Your task to perform on an android device: all mails in gmail Image 0: 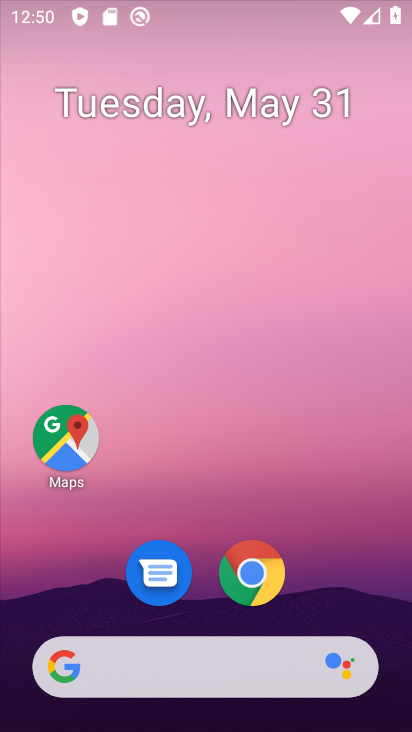
Step 0: click (352, 239)
Your task to perform on an android device: all mails in gmail Image 1: 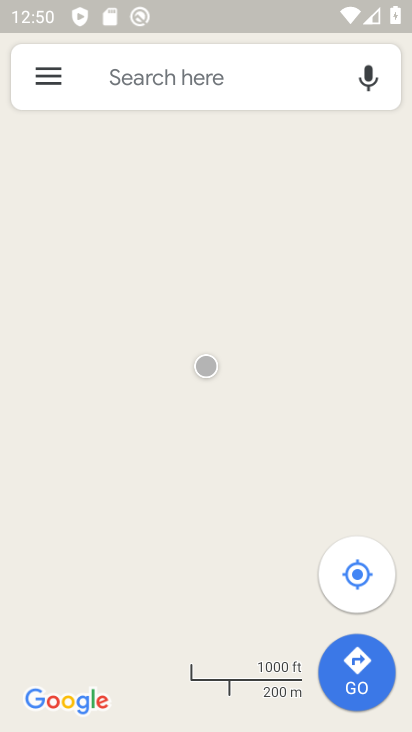
Step 1: press home button
Your task to perform on an android device: all mails in gmail Image 2: 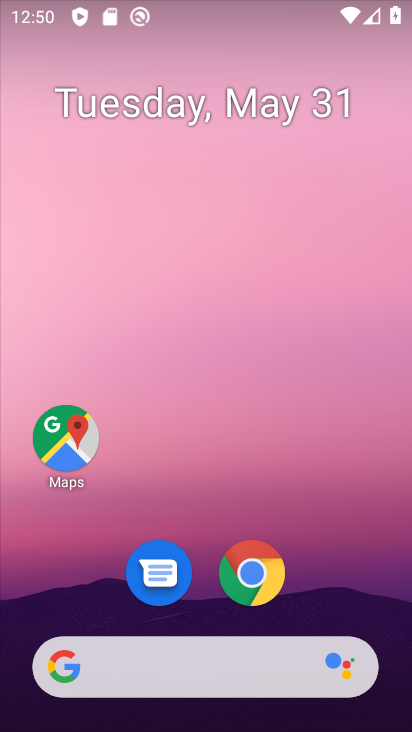
Step 2: drag from (360, 602) to (343, 192)
Your task to perform on an android device: all mails in gmail Image 3: 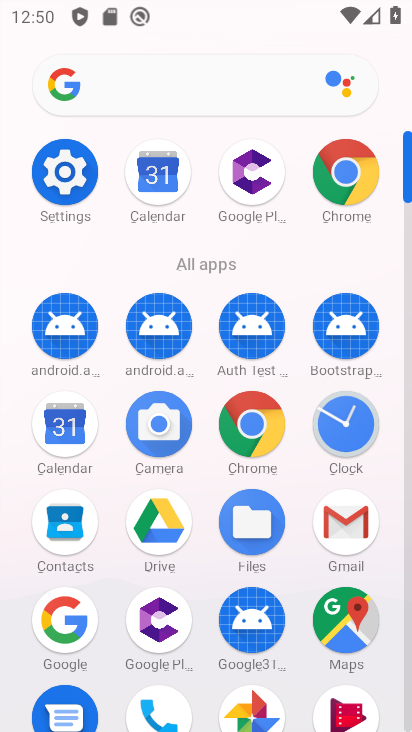
Step 3: click (347, 529)
Your task to perform on an android device: all mails in gmail Image 4: 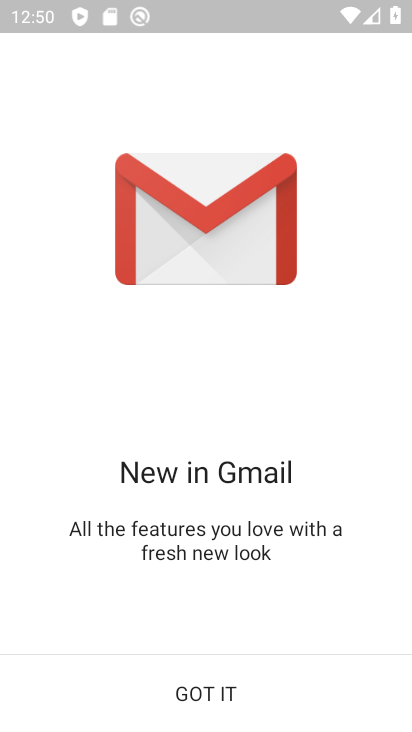
Step 4: click (246, 698)
Your task to perform on an android device: all mails in gmail Image 5: 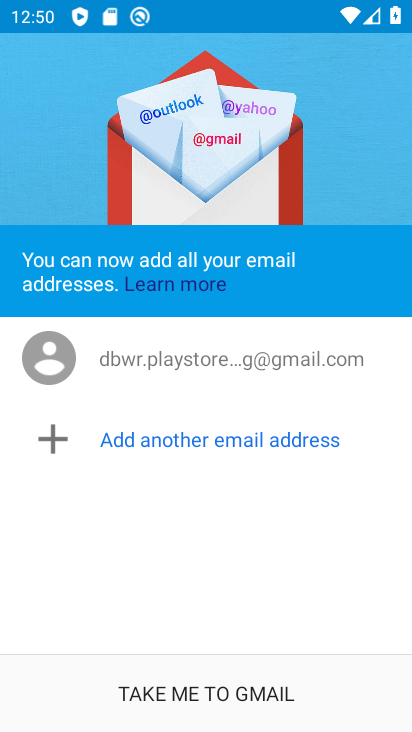
Step 5: click (294, 690)
Your task to perform on an android device: all mails in gmail Image 6: 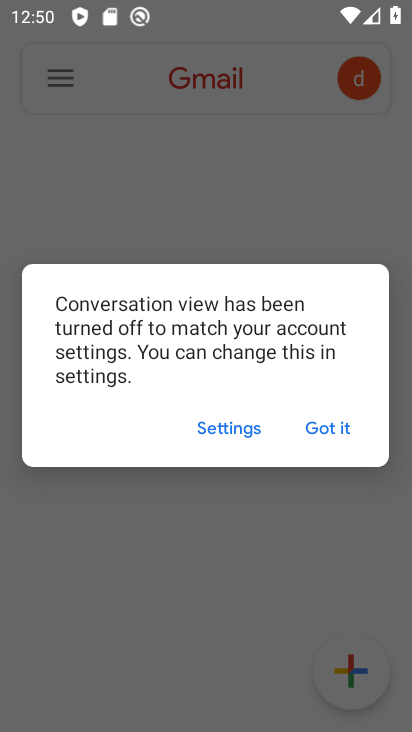
Step 6: click (316, 418)
Your task to perform on an android device: all mails in gmail Image 7: 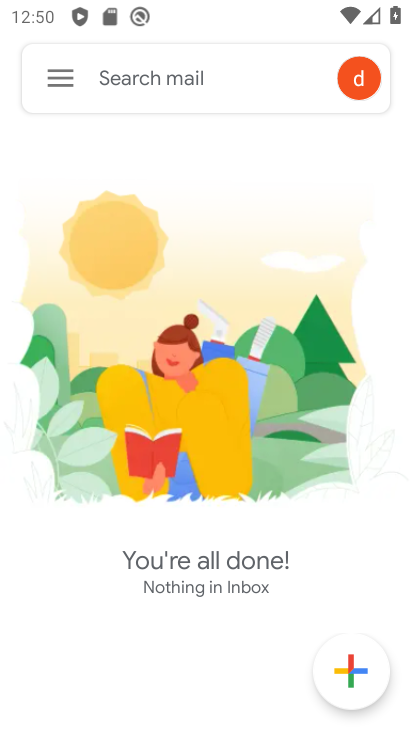
Step 7: click (57, 92)
Your task to perform on an android device: all mails in gmail Image 8: 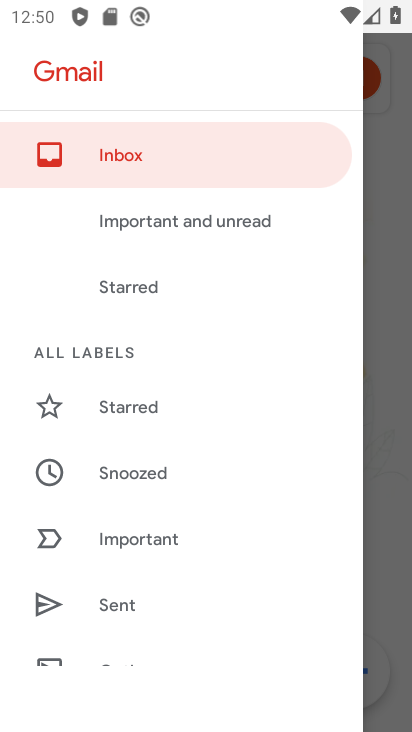
Step 8: drag from (242, 412) to (253, 312)
Your task to perform on an android device: all mails in gmail Image 9: 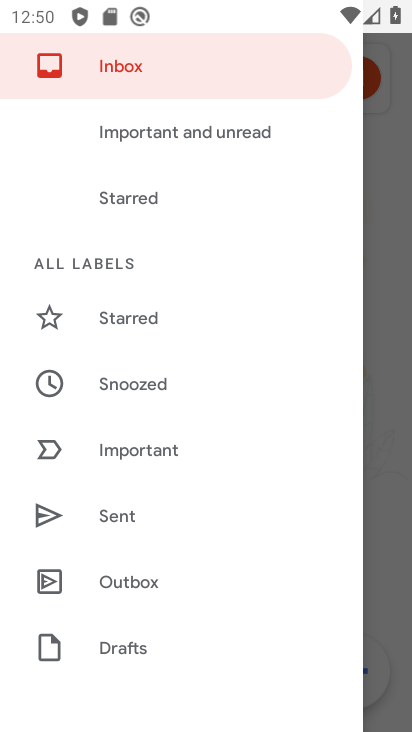
Step 9: drag from (264, 489) to (269, 365)
Your task to perform on an android device: all mails in gmail Image 10: 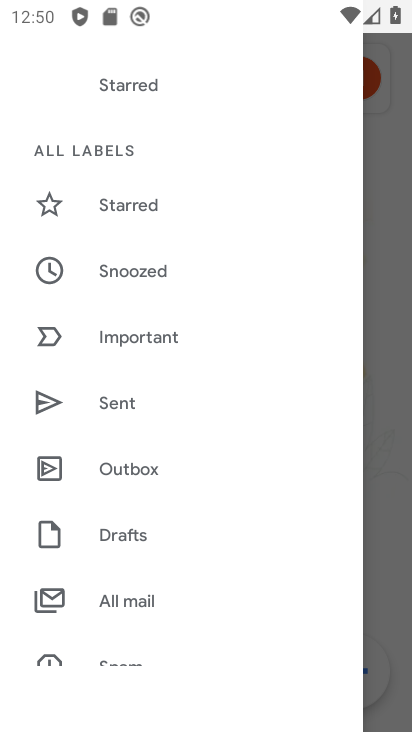
Step 10: drag from (268, 511) to (273, 413)
Your task to perform on an android device: all mails in gmail Image 11: 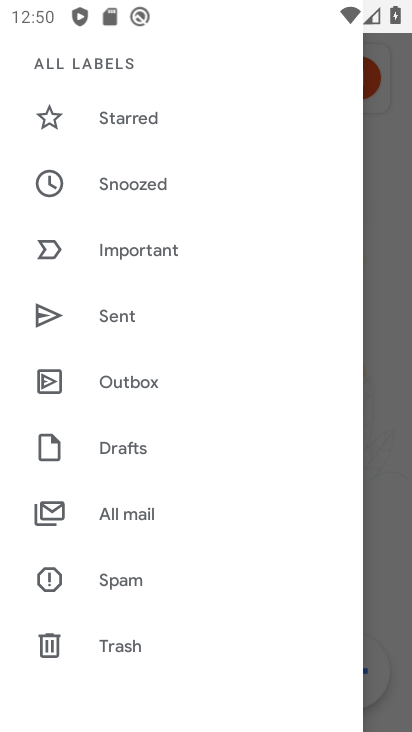
Step 11: drag from (284, 568) to (285, 463)
Your task to perform on an android device: all mails in gmail Image 12: 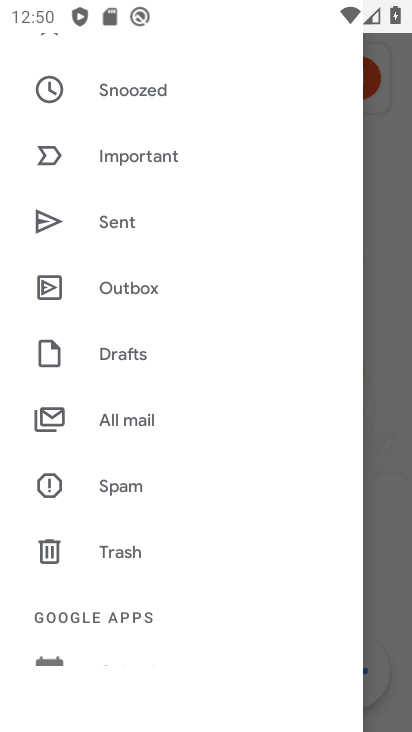
Step 12: drag from (272, 553) to (273, 443)
Your task to perform on an android device: all mails in gmail Image 13: 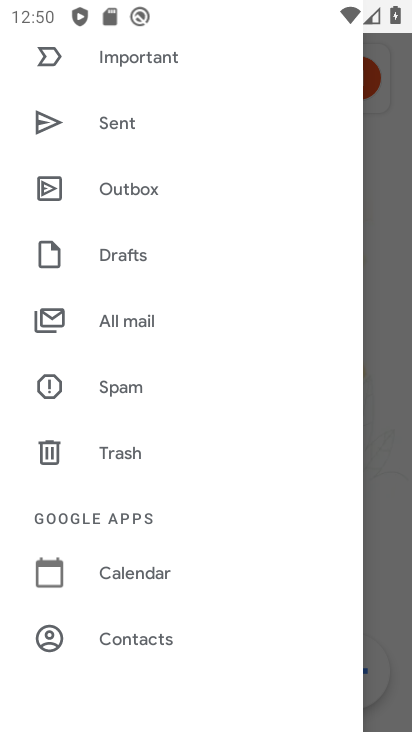
Step 13: drag from (271, 572) to (266, 462)
Your task to perform on an android device: all mails in gmail Image 14: 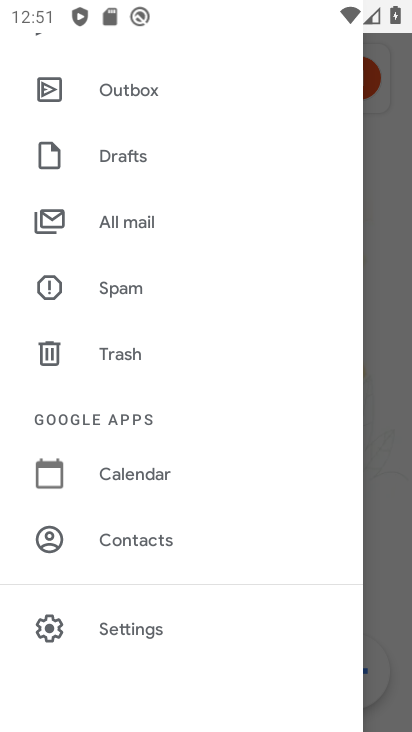
Step 14: drag from (269, 561) to (272, 453)
Your task to perform on an android device: all mails in gmail Image 15: 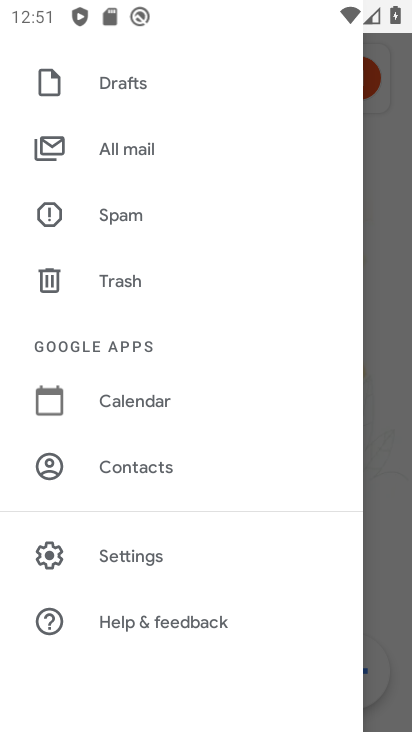
Step 15: drag from (280, 555) to (288, 474)
Your task to perform on an android device: all mails in gmail Image 16: 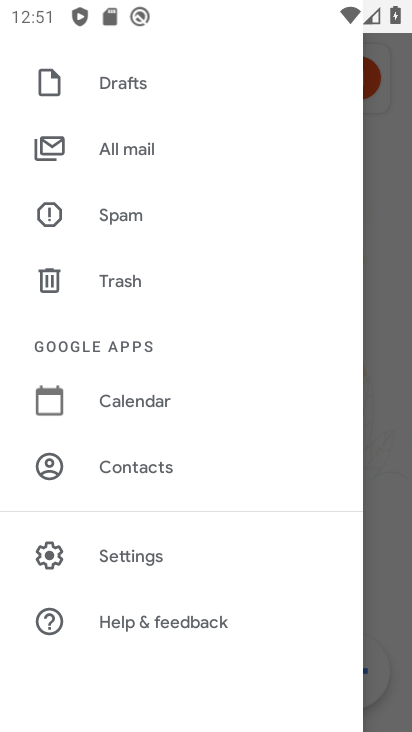
Step 16: drag from (275, 318) to (276, 427)
Your task to perform on an android device: all mails in gmail Image 17: 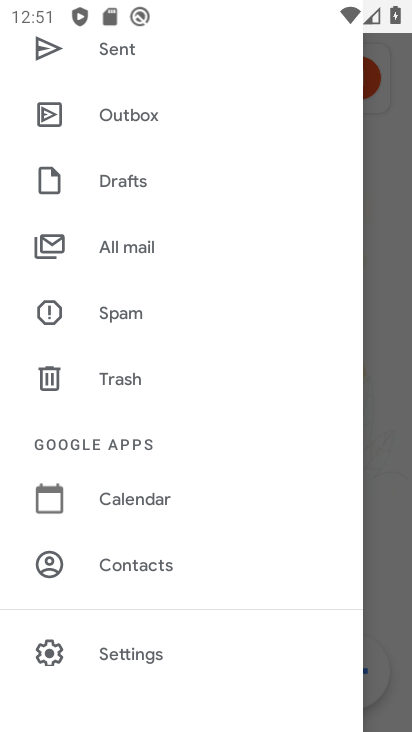
Step 17: drag from (267, 303) to (279, 419)
Your task to perform on an android device: all mails in gmail Image 18: 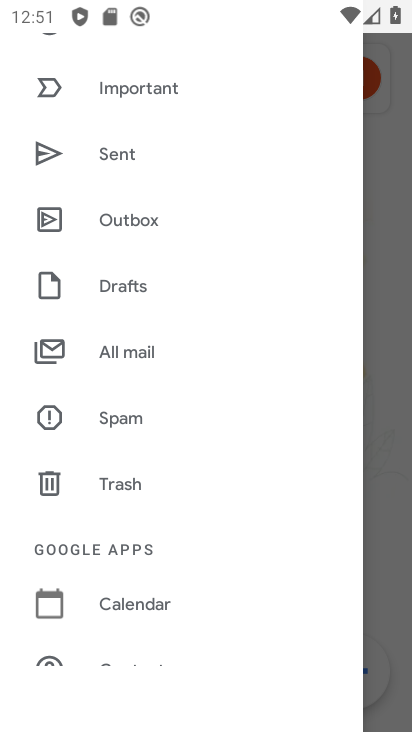
Step 18: click (159, 365)
Your task to perform on an android device: all mails in gmail Image 19: 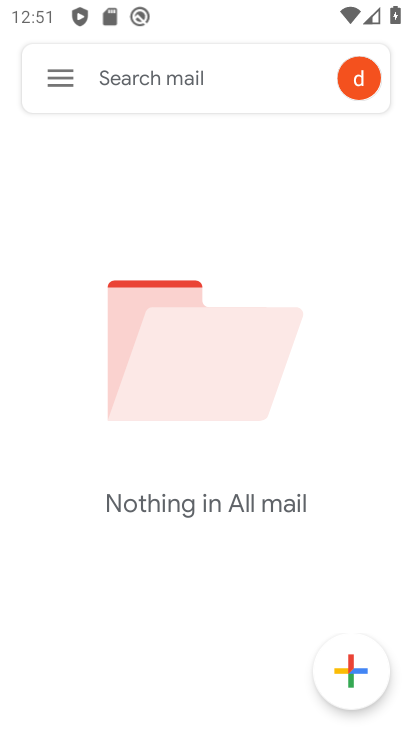
Step 19: task complete